Your task to perform on an android device: open app "NewsBreak: Local News & Alerts" (install if not already installed) and go to login screen Image 0: 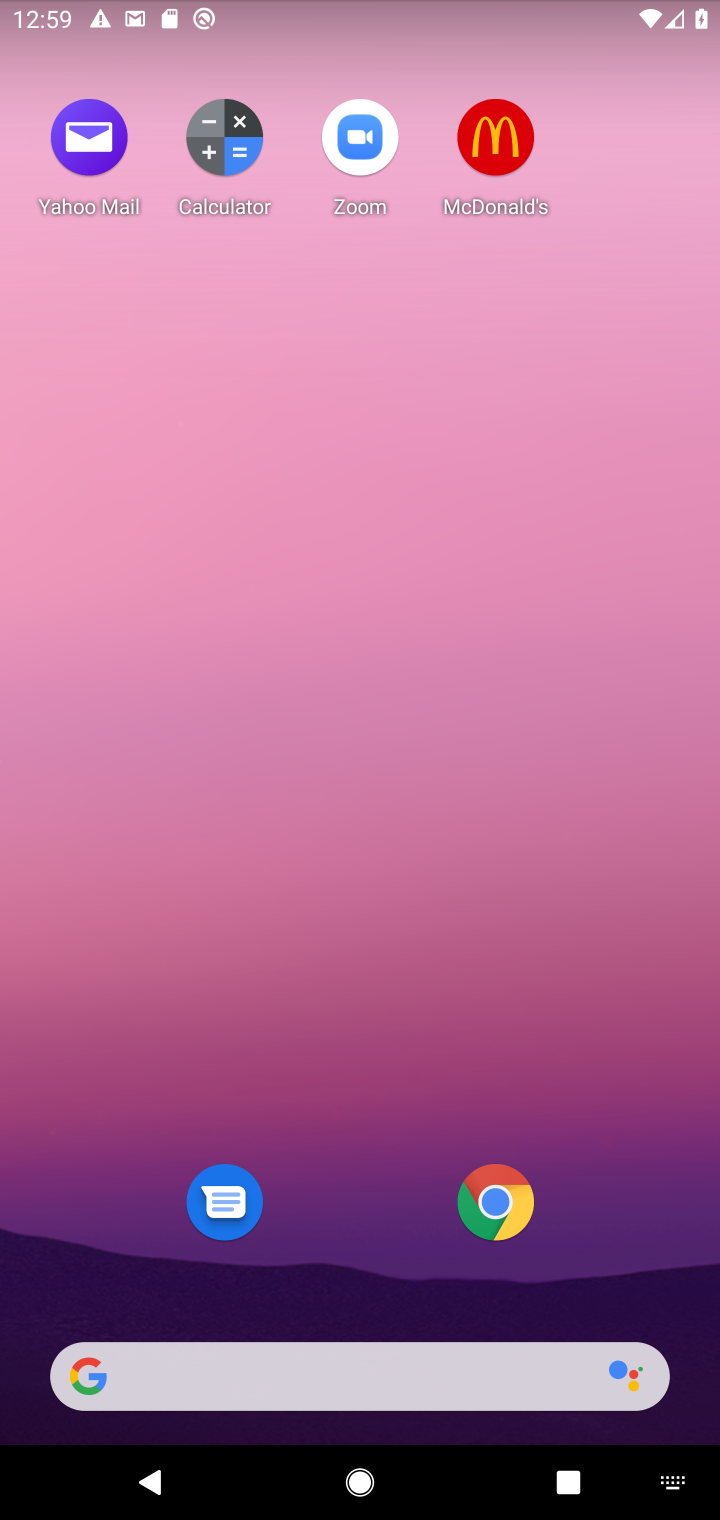
Step 0: drag from (342, 1035) to (456, 204)
Your task to perform on an android device: open app "NewsBreak: Local News & Alerts" (install if not already installed) and go to login screen Image 1: 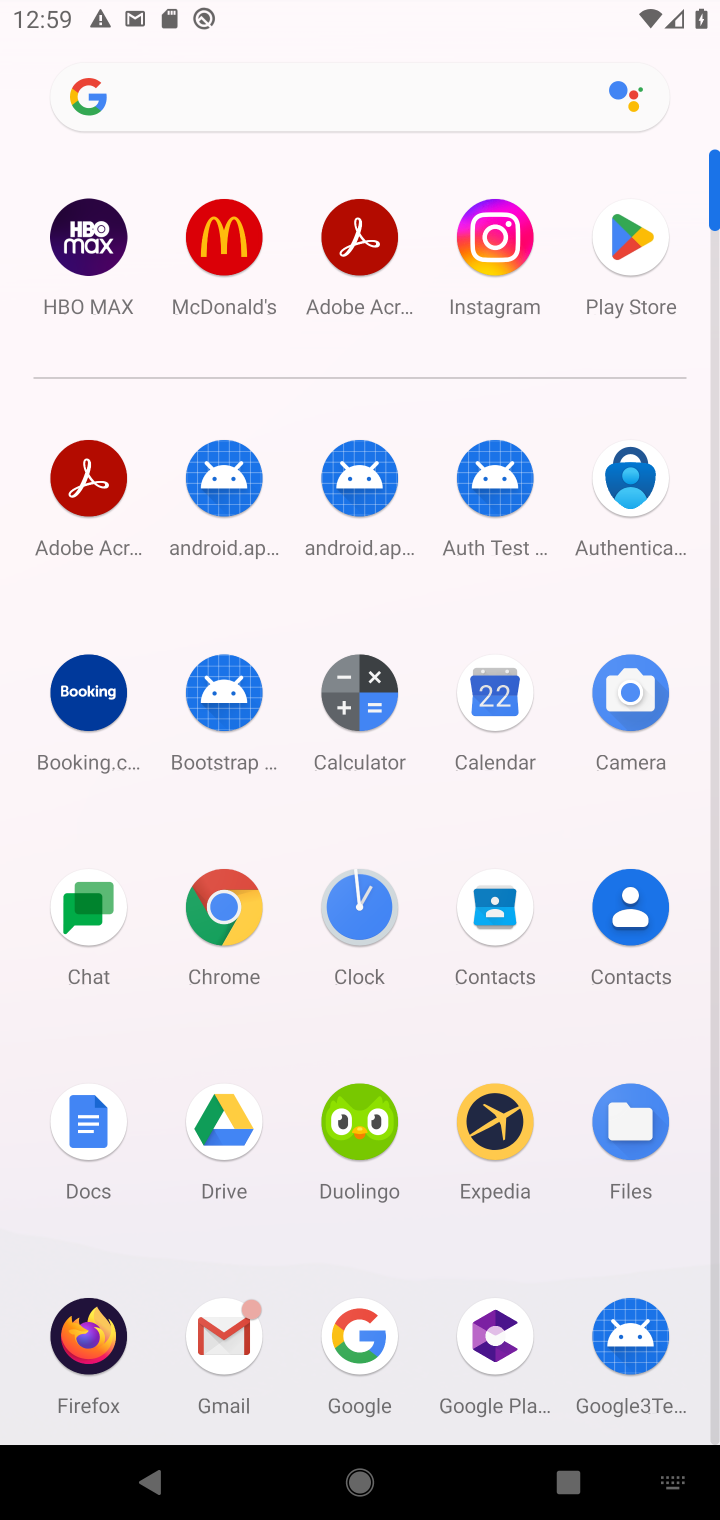
Step 1: click (618, 231)
Your task to perform on an android device: open app "NewsBreak: Local News & Alerts" (install if not already installed) and go to login screen Image 2: 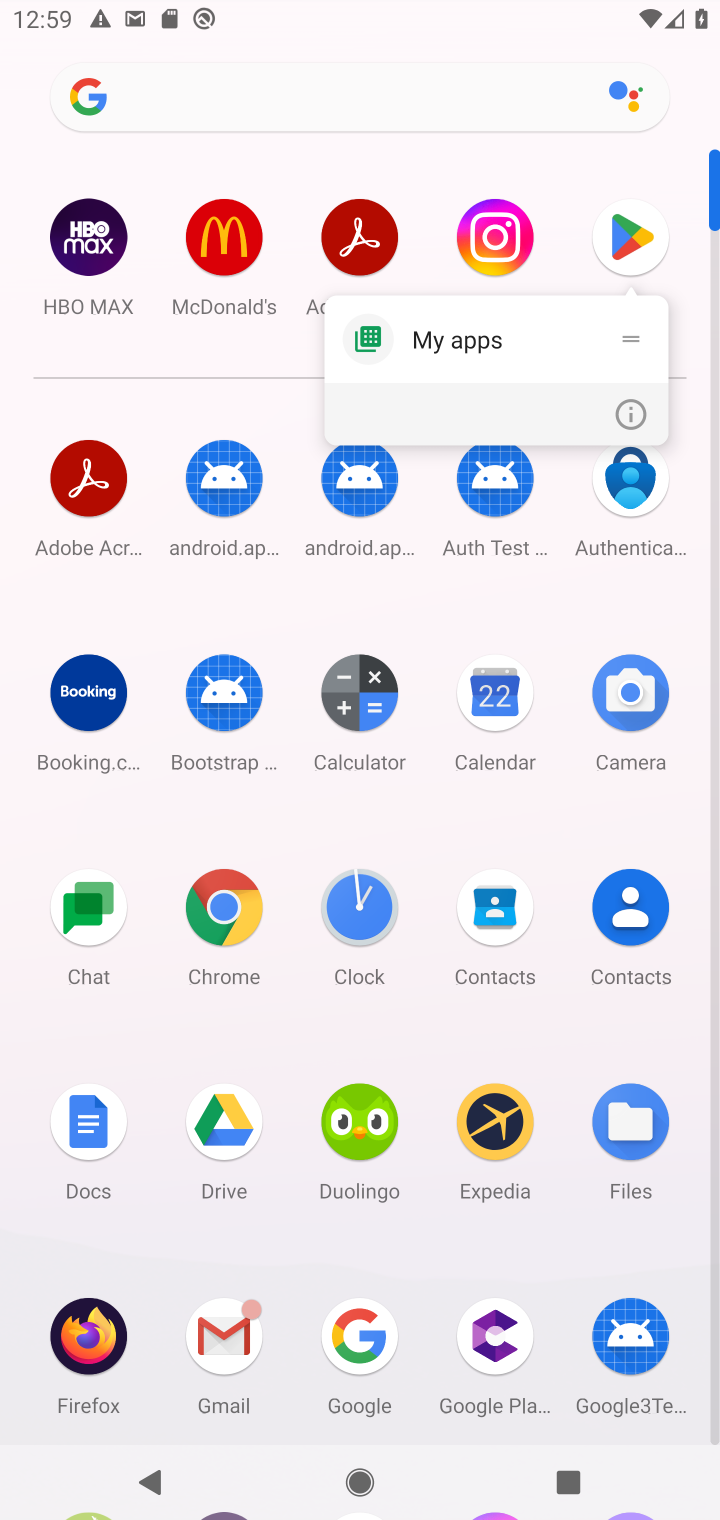
Step 2: click (616, 231)
Your task to perform on an android device: open app "NewsBreak: Local News & Alerts" (install if not already installed) and go to login screen Image 3: 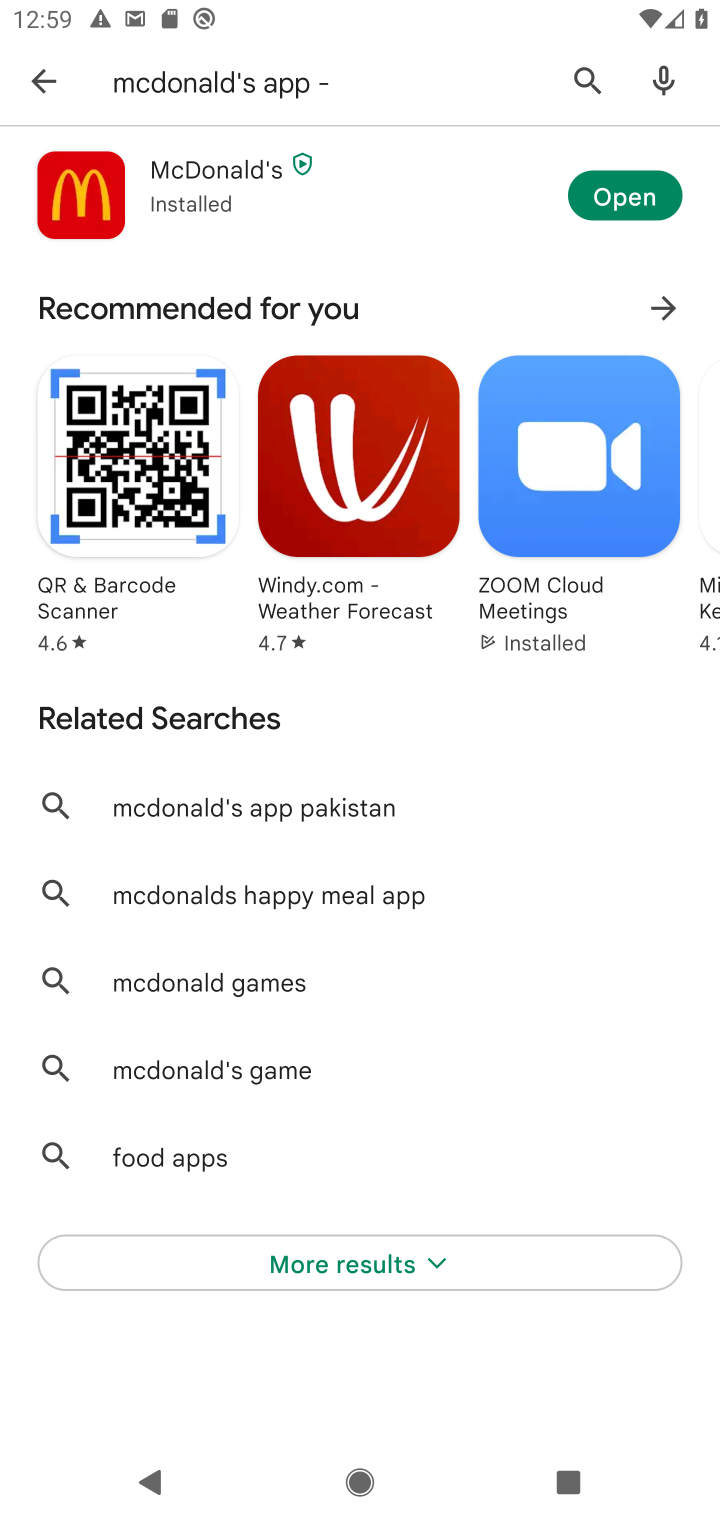
Step 3: click (587, 80)
Your task to perform on an android device: open app "NewsBreak: Local News & Alerts" (install if not already installed) and go to login screen Image 4: 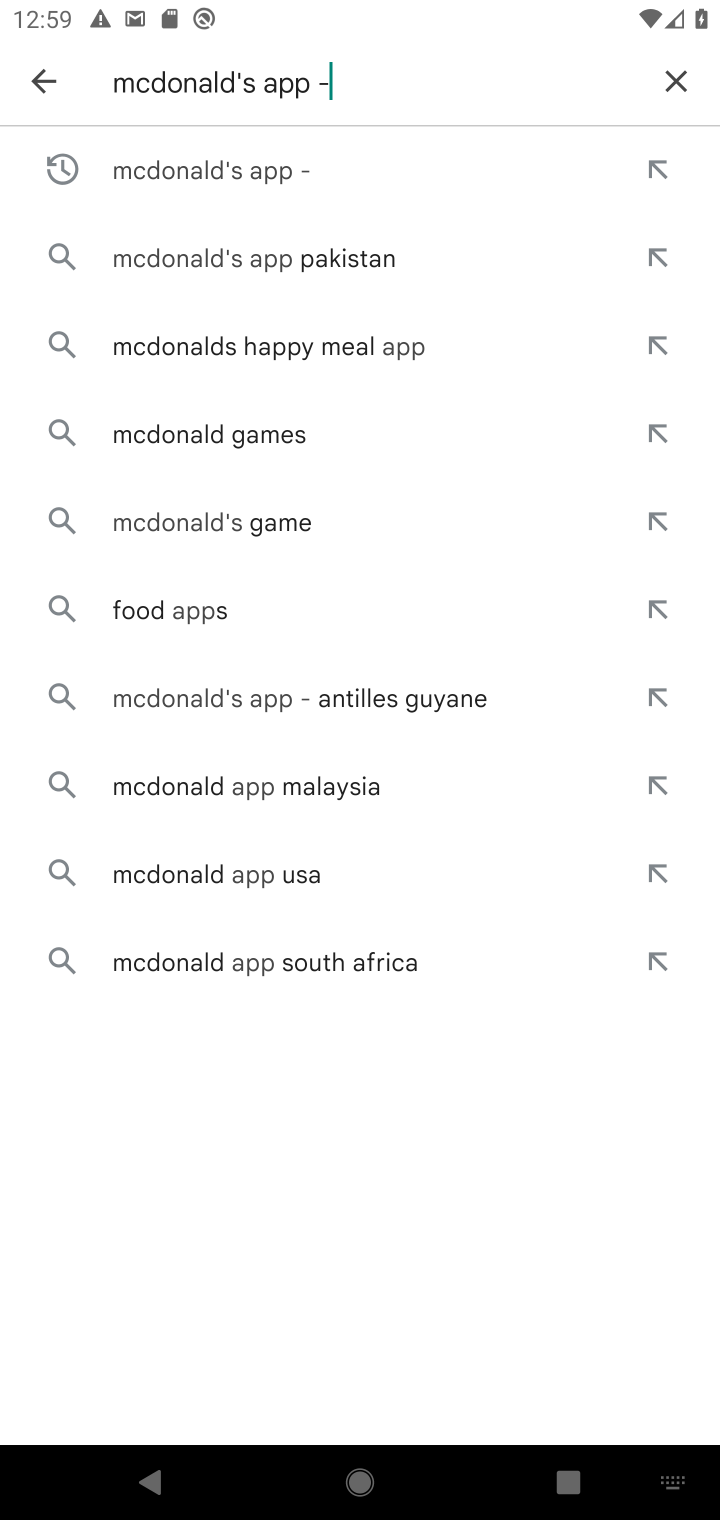
Step 4: click (682, 71)
Your task to perform on an android device: open app "NewsBreak: Local News & Alerts" (install if not already installed) and go to login screen Image 5: 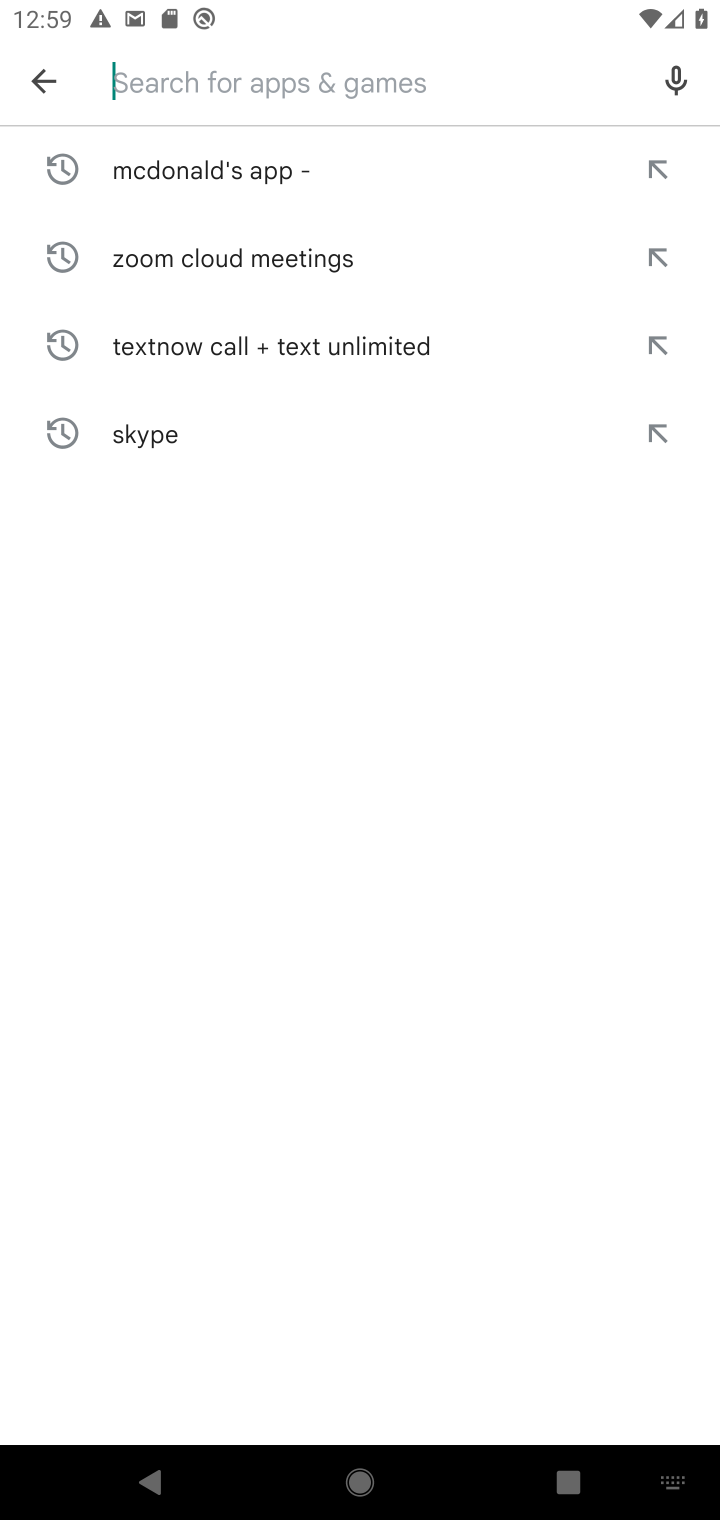
Step 5: type "NewsBreak: Local News & Alerts"
Your task to perform on an android device: open app "NewsBreak: Local News & Alerts" (install if not already installed) and go to login screen Image 6: 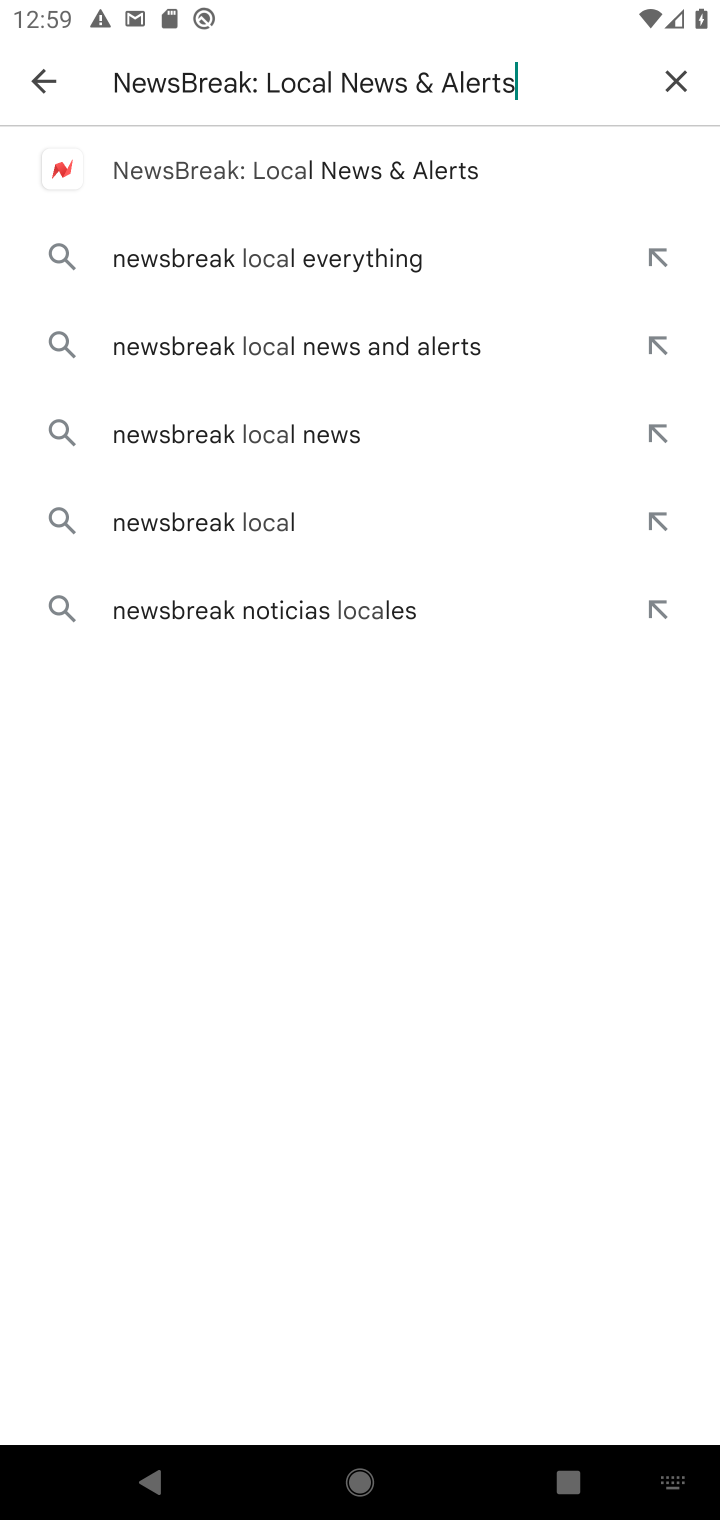
Step 6: type ""
Your task to perform on an android device: open app "NewsBreak: Local News & Alerts" (install if not already installed) and go to login screen Image 7: 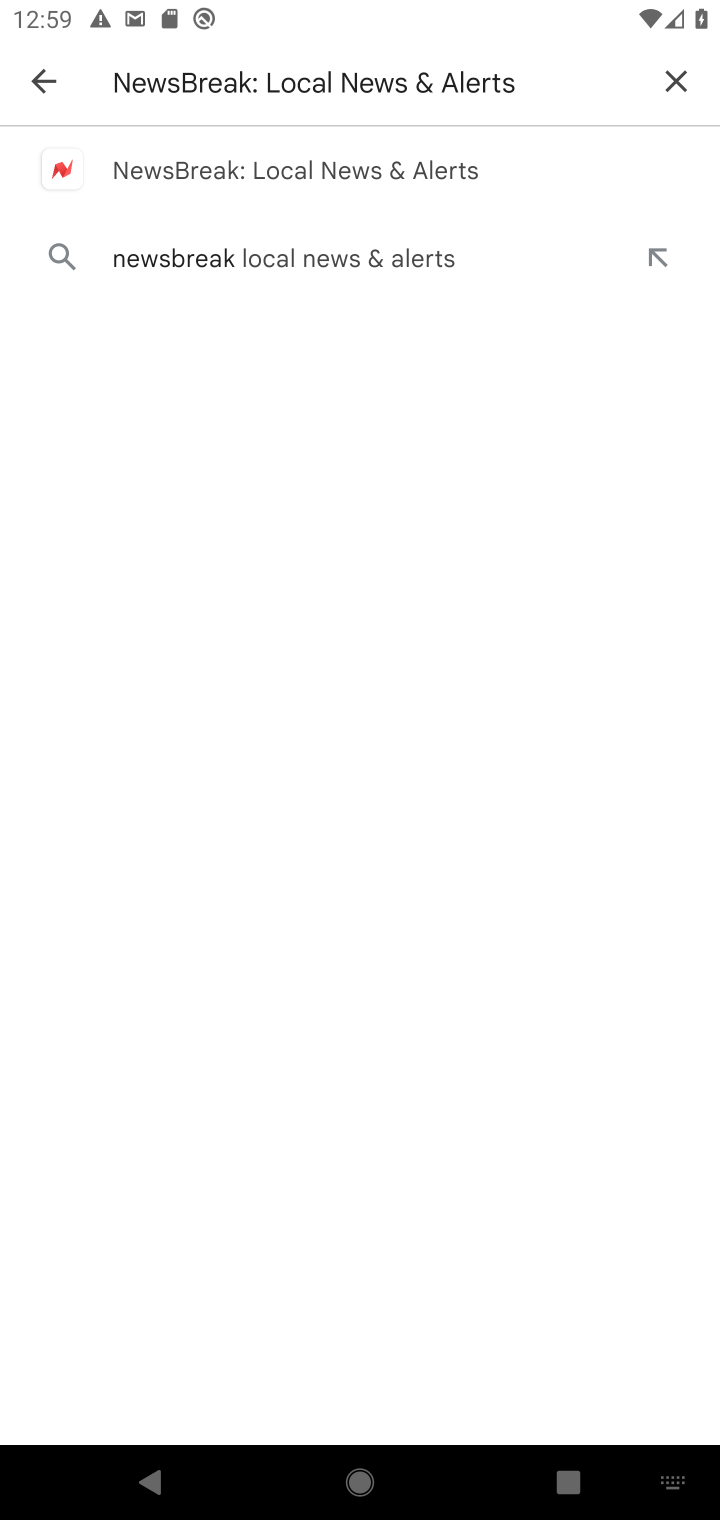
Step 7: click (343, 163)
Your task to perform on an android device: open app "NewsBreak: Local News & Alerts" (install if not already installed) and go to login screen Image 8: 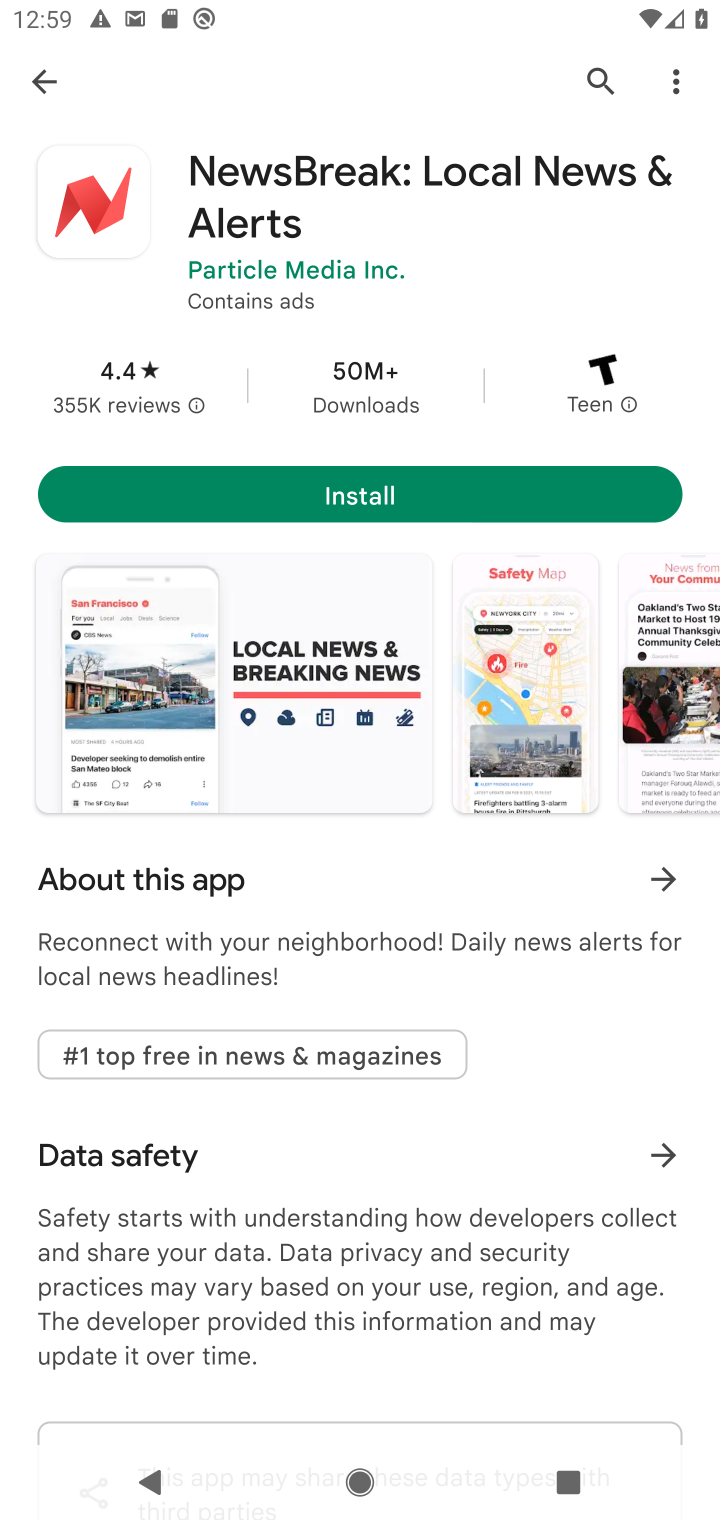
Step 8: click (353, 494)
Your task to perform on an android device: open app "NewsBreak: Local News & Alerts" (install if not already installed) and go to login screen Image 9: 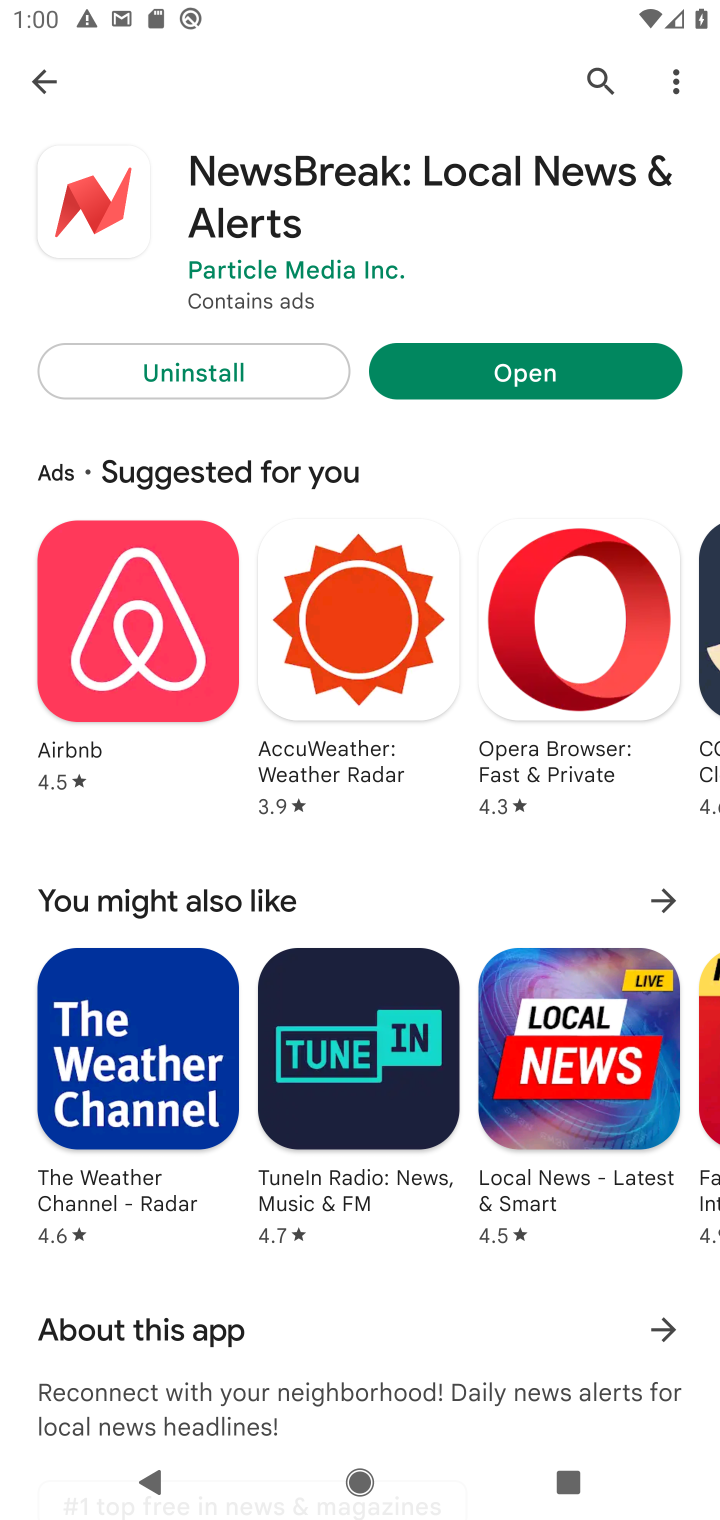
Step 9: click (554, 371)
Your task to perform on an android device: open app "NewsBreak: Local News & Alerts" (install if not already installed) and go to login screen Image 10: 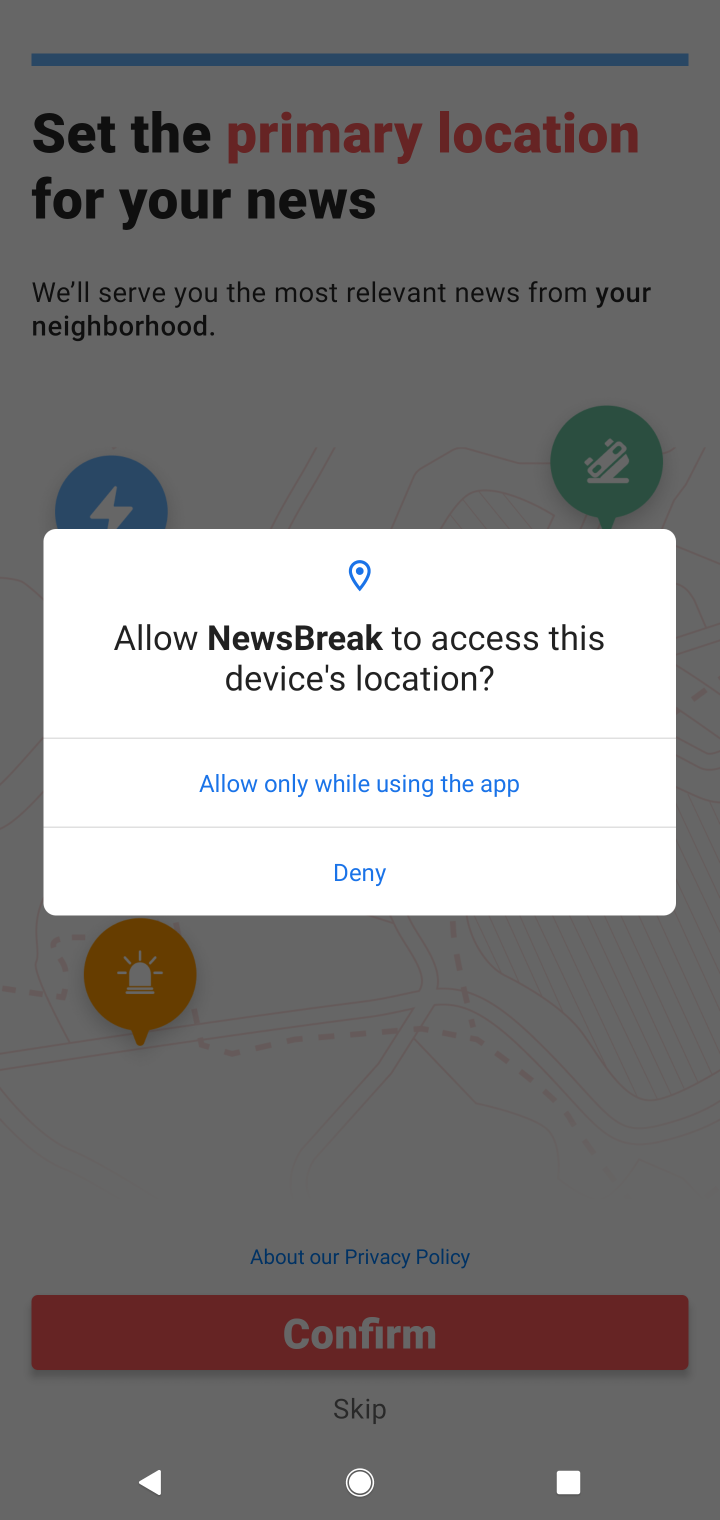
Step 10: click (422, 787)
Your task to perform on an android device: open app "NewsBreak: Local News & Alerts" (install if not already installed) and go to login screen Image 11: 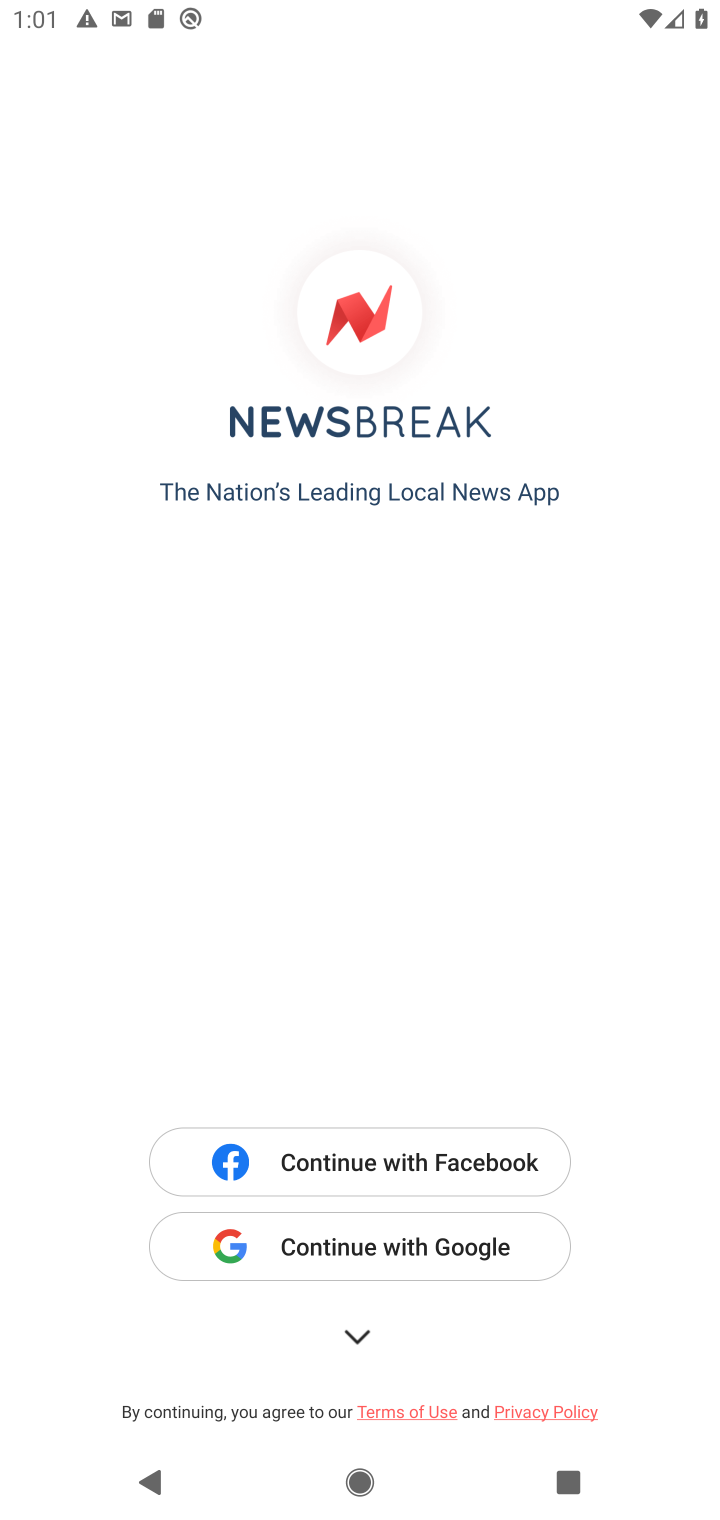
Step 11: task complete